Your task to perform on an android device: Open network settings Image 0: 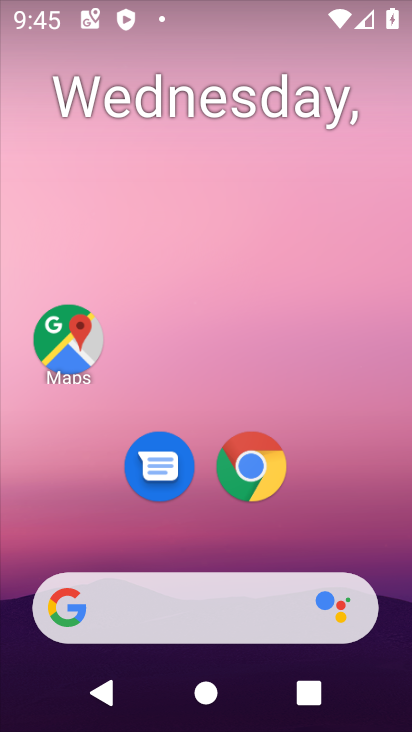
Step 0: drag from (320, 523) to (123, 165)
Your task to perform on an android device: Open network settings Image 1: 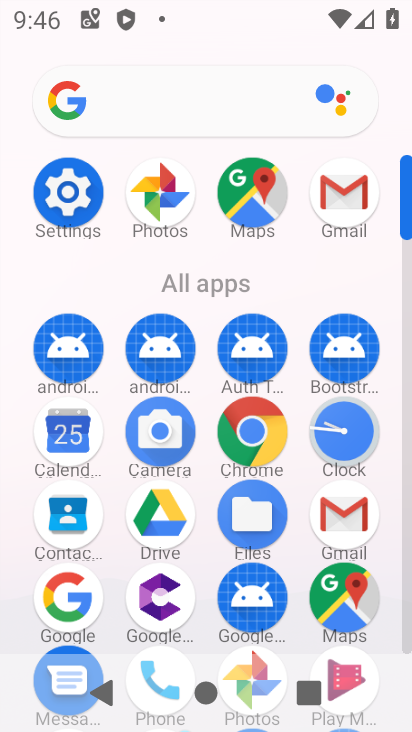
Step 1: click (76, 192)
Your task to perform on an android device: Open network settings Image 2: 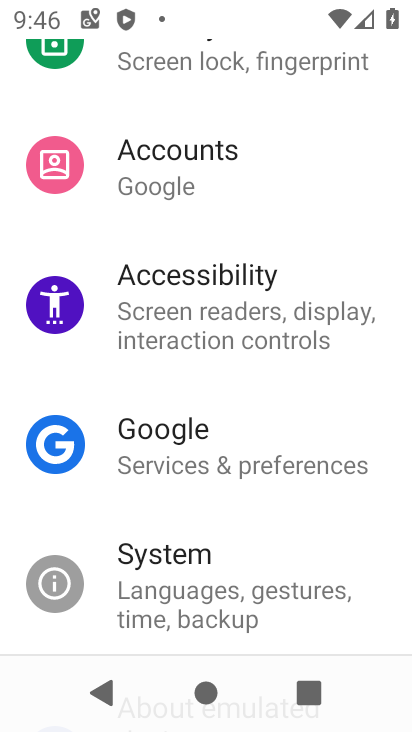
Step 2: drag from (76, 192) to (50, 720)
Your task to perform on an android device: Open network settings Image 3: 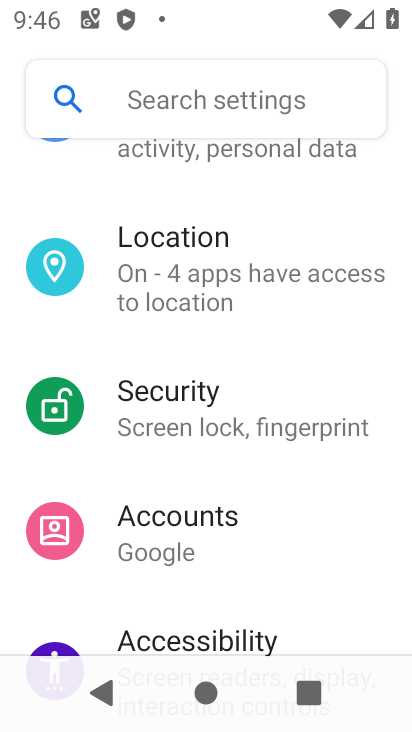
Step 3: drag from (322, 174) to (276, 664)
Your task to perform on an android device: Open network settings Image 4: 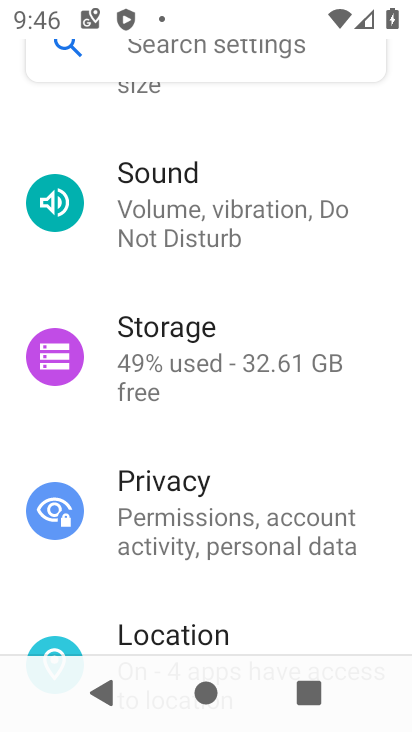
Step 4: drag from (299, 241) to (260, 704)
Your task to perform on an android device: Open network settings Image 5: 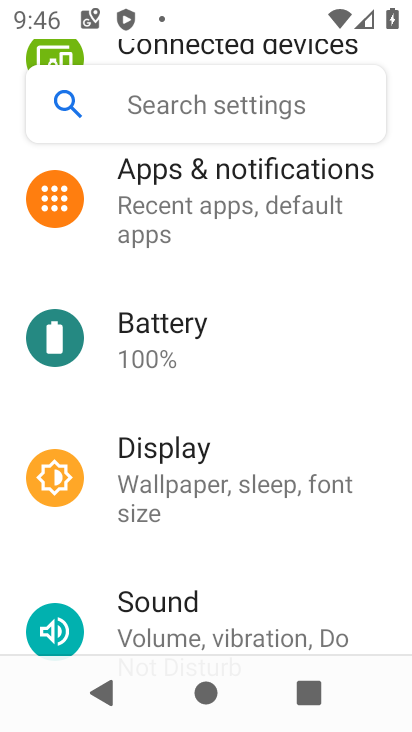
Step 5: drag from (276, 232) to (247, 593)
Your task to perform on an android device: Open network settings Image 6: 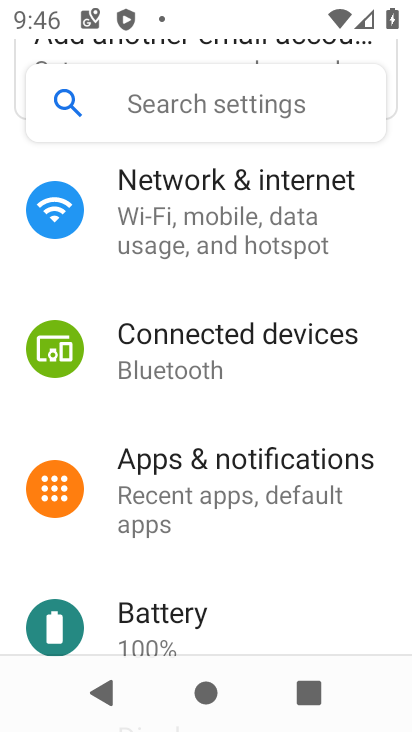
Step 6: click (234, 192)
Your task to perform on an android device: Open network settings Image 7: 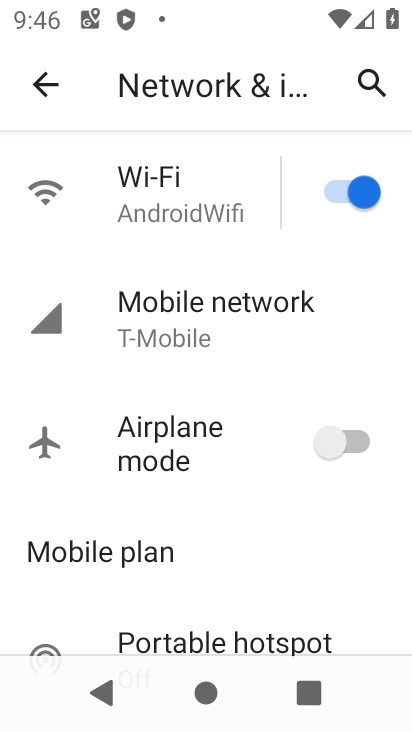
Step 7: click (141, 327)
Your task to perform on an android device: Open network settings Image 8: 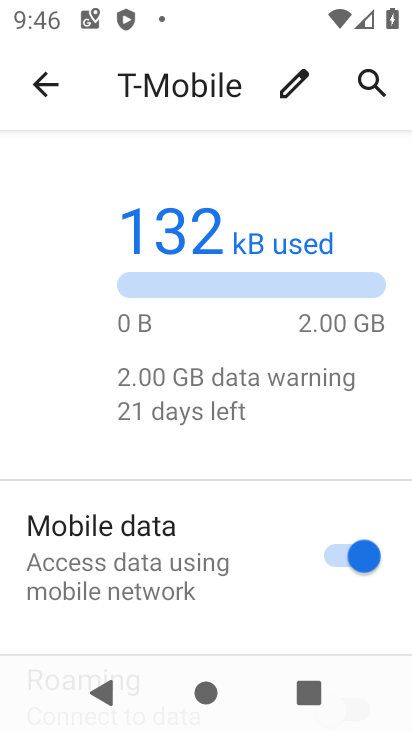
Step 8: drag from (216, 626) to (244, 1)
Your task to perform on an android device: Open network settings Image 9: 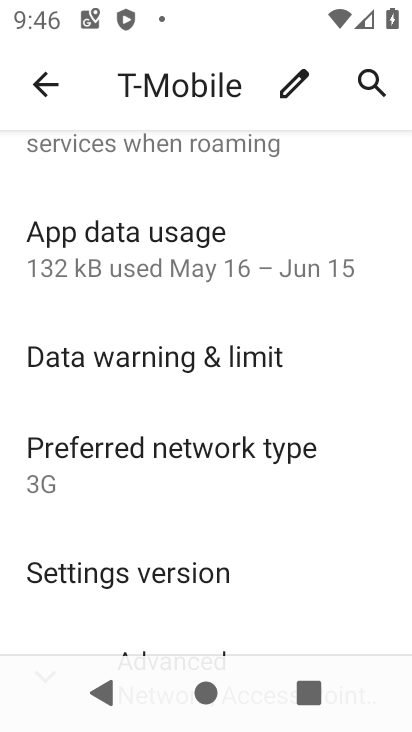
Step 9: drag from (216, 586) to (214, 344)
Your task to perform on an android device: Open network settings Image 10: 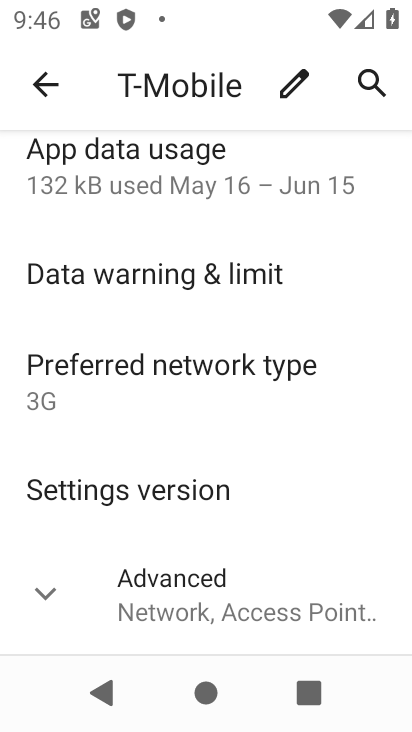
Step 10: click (202, 607)
Your task to perform on an android device: Open network settings Image 11: 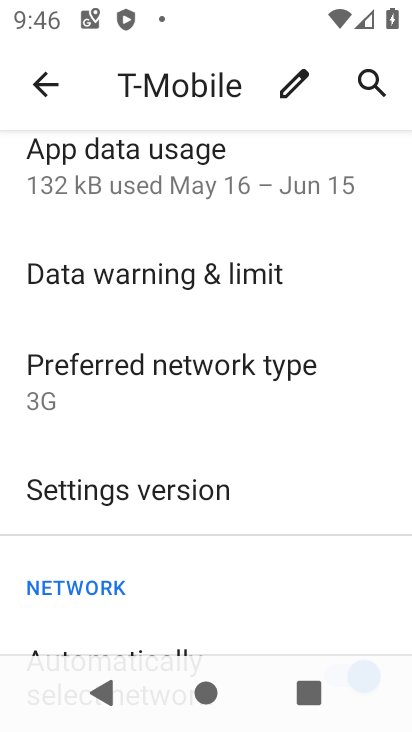
Step 11: task complete